Your task to perform on an android device: Open calendar and show me the first week of next month Image 0: 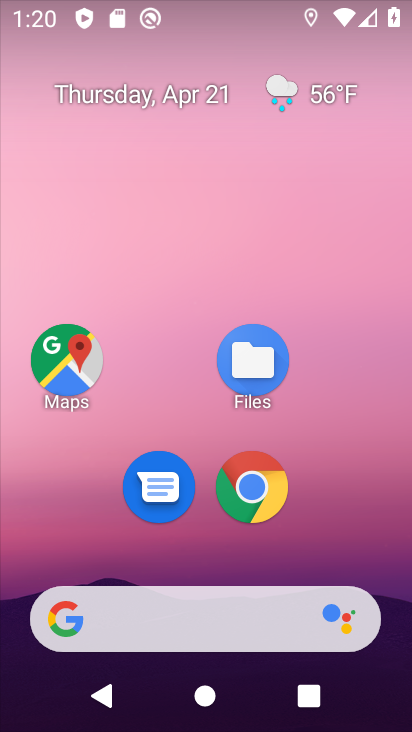
Step 0: drag from (373, 529) to (364, 231)
Your task to perform on an android device: Open calendar and show me the first week of next month Image 1: 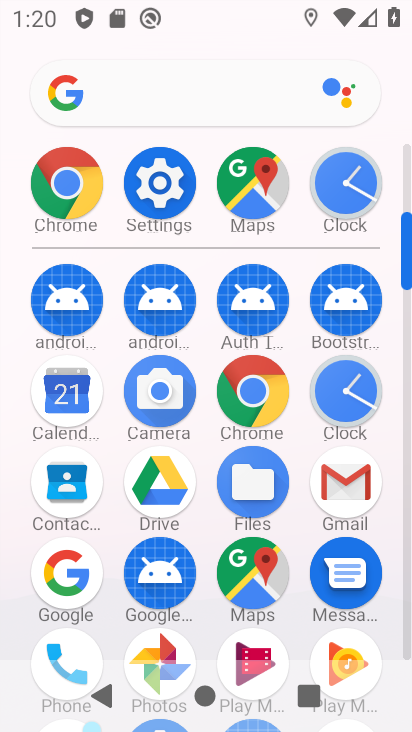
Step 1: click (47, 400)
Your task to perform on an android device: Open calendar and show me the first week of next month Image 2: 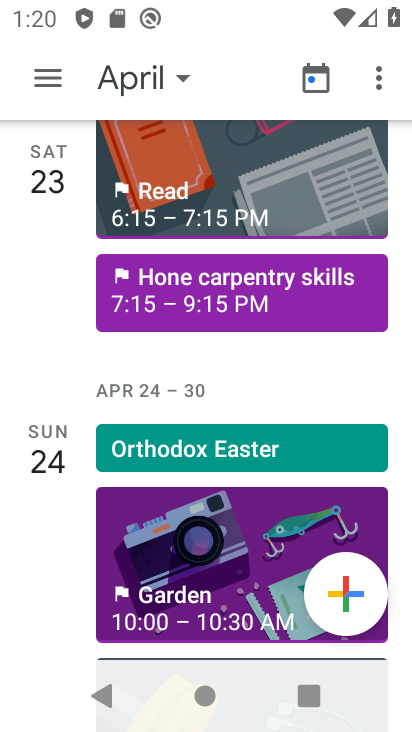
Step 2: click (116, 81)
Your task to perform on an android device: Open calendar and show me the first week of next month Image 3: 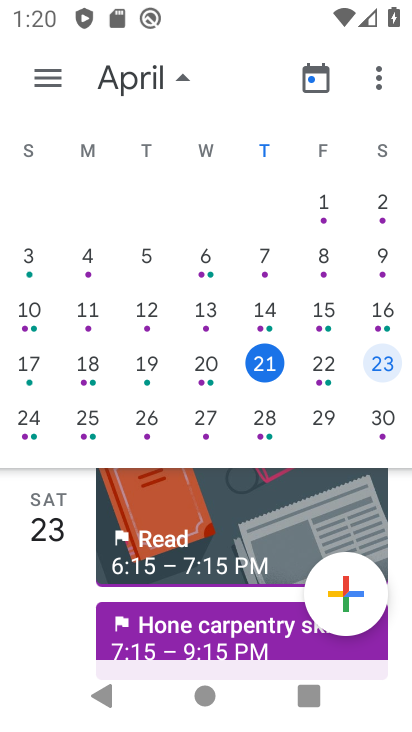
Step 3: task complete